Your task to perform on an android device: Check the news Image 0: 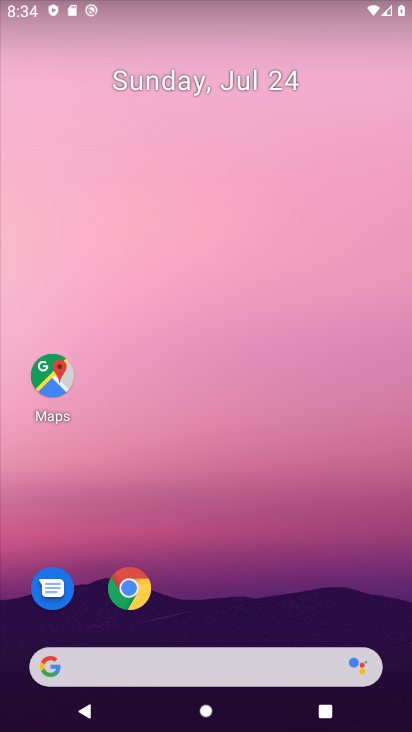
Step 0: click (158, 671)
Your task to perform on an android device: Check the news Image 1: 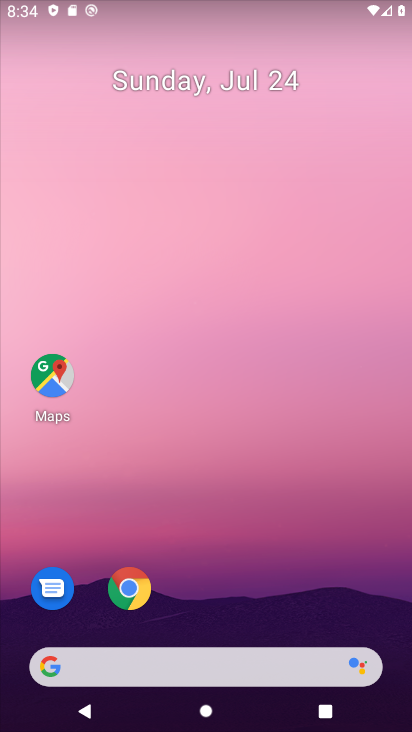
Step 1: click (158, 671)
Your task to perform on an android device: Check the news Image 2: 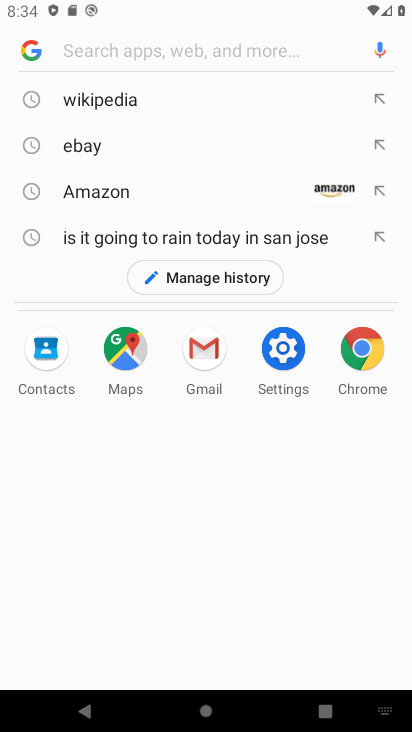
Step 2: type "check the news "
Your task to perform on an android device: Check the news Image 3: 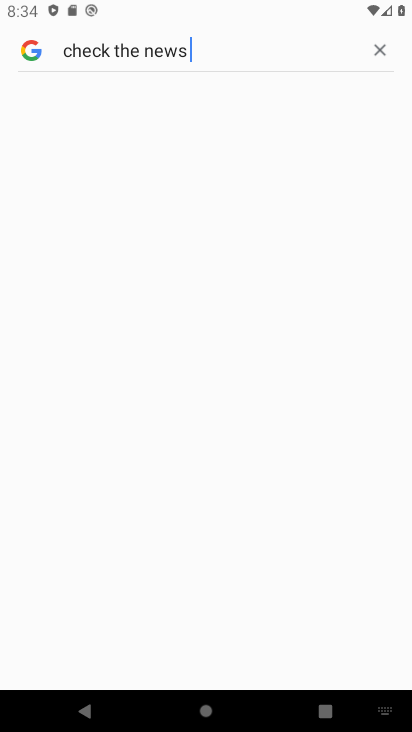
Step 3: press enter
Your task to perform on an android device: Check the news Image 4: 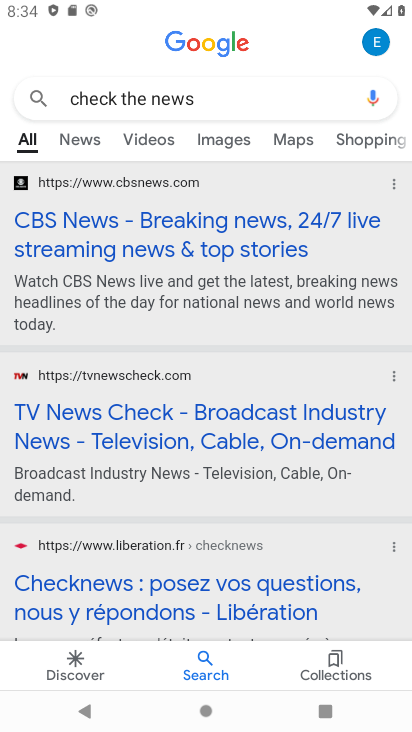
Step 4: click (174, 217)
Your task to perform on an android device: Check the news Image 5: 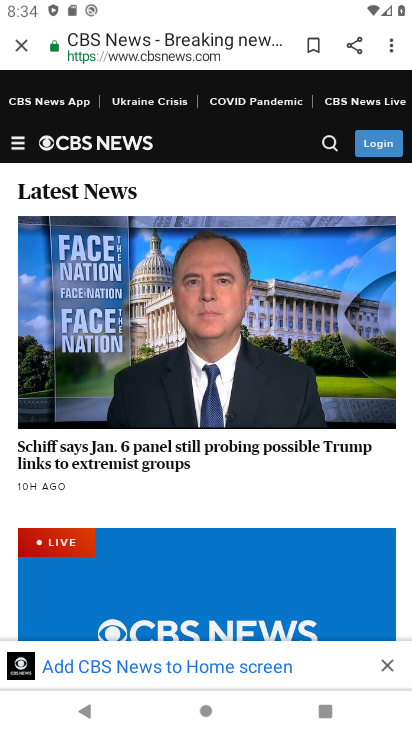
Step 5: task complete